Your task to perform on an android device: empty trash in google photos Image 0: 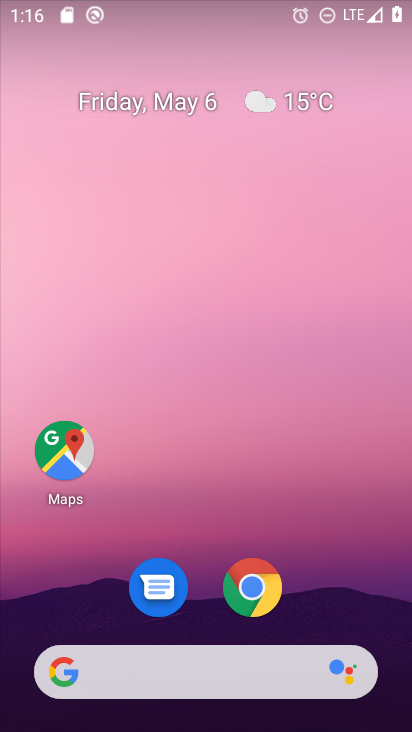
Step 0: drag from (336, 524) to (224, 0)
Your task to perform on an android device: empty trash in google photos Image 1: 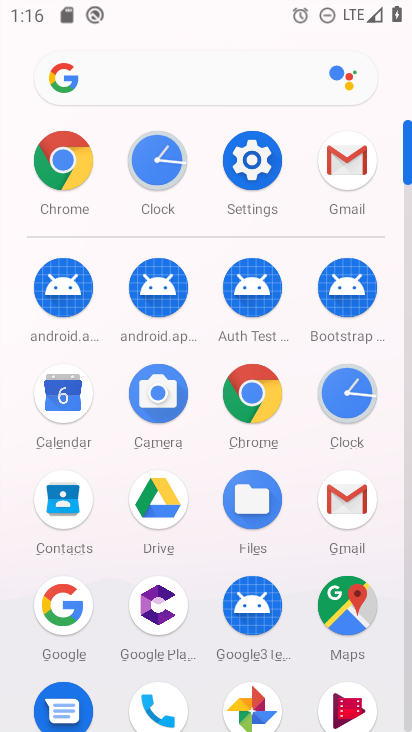
Step 1: click (249, 706)
Your task to perform on an android device: empty trash in google photos Image 2: 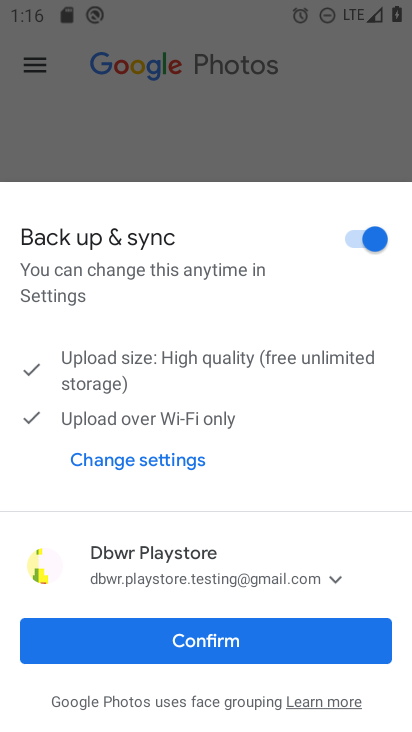
Step 2: click (247, 647)
Your task to perform on an android device: empty trash in google photos Image 3: 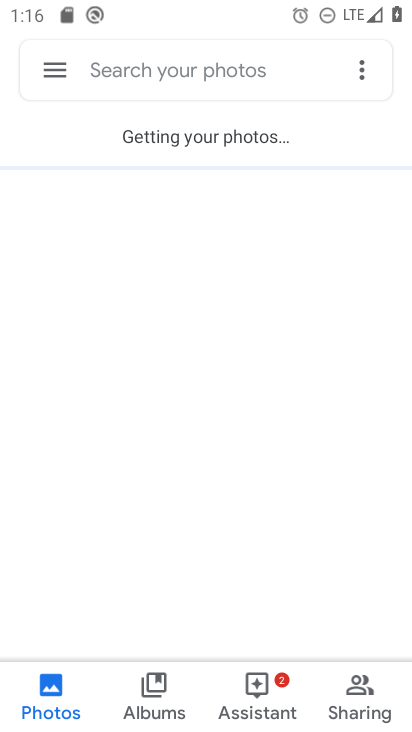
Step 3: click (51, 69)
Your task to perform on an android device: empty trash in google photos Image 4: 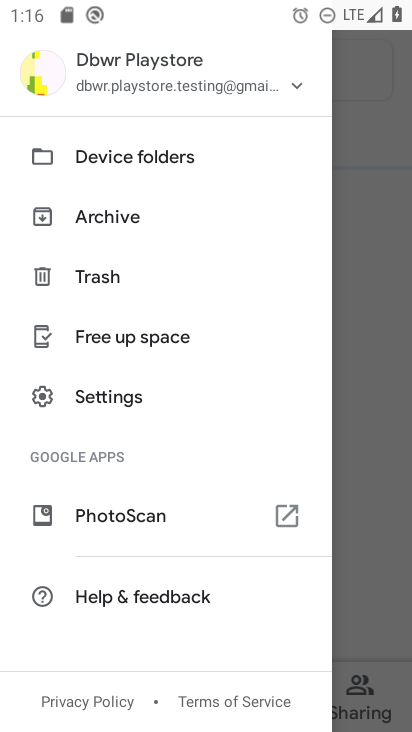
Step 4: click (102, 292)
Your task to perform on an android device: empty trash in google photos Image 5: 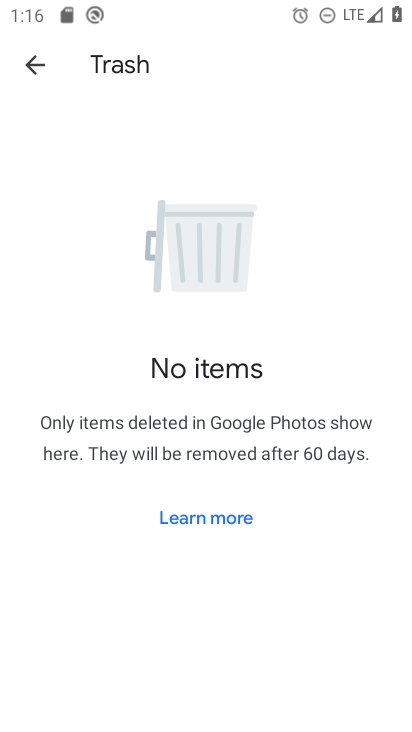
Step 5: task complete